Your task to perform on an android device: Go to accessibility settings Image 0: 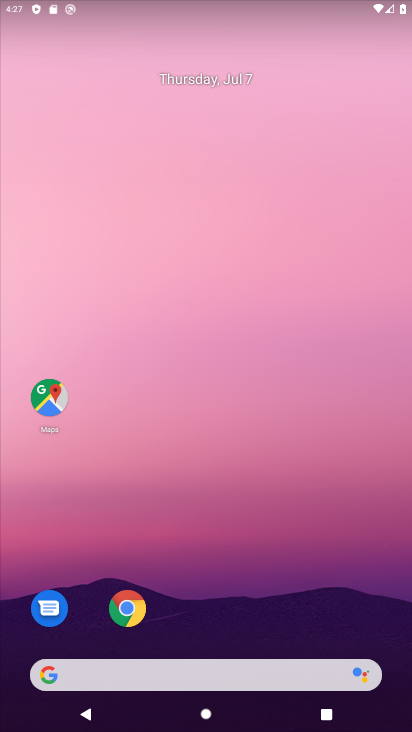
Step 0: drag from (290, 613) to (278, 95)
Your task to perform on an android device: Go to accessibility settings Image 1: 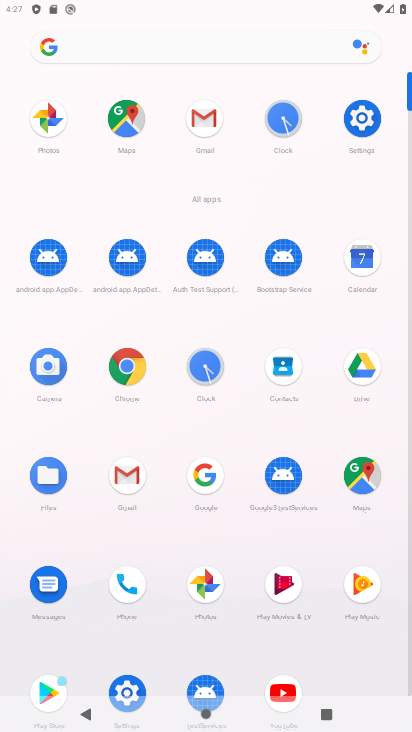
Step 1: click (361, 126)
Your task to perform on an android device: Go to accessibility settings Image 2: 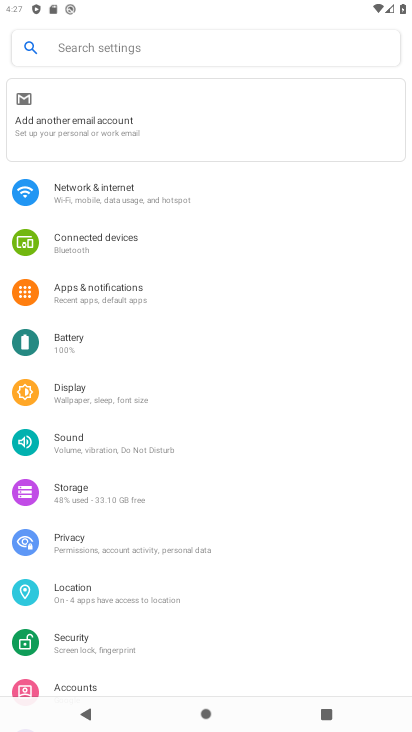
Step 2: drag from (206, 635) to (121, 191)
Your task to perform on an android device: Go to accessibility settings Image 3: 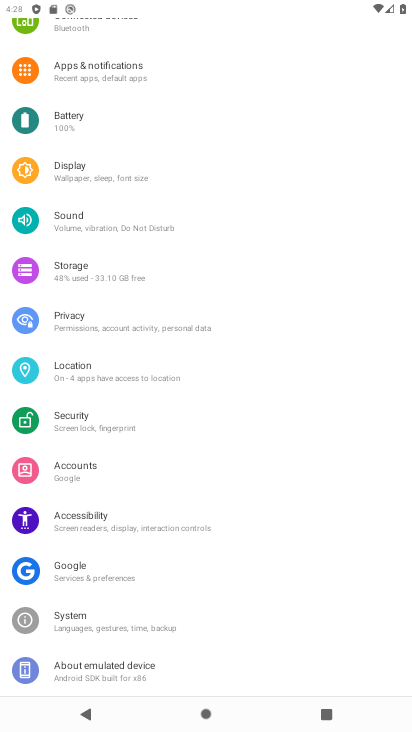
Step 3: click (123, 513)
Your task to perform on an android device: Go to accessibility settings Image 4: 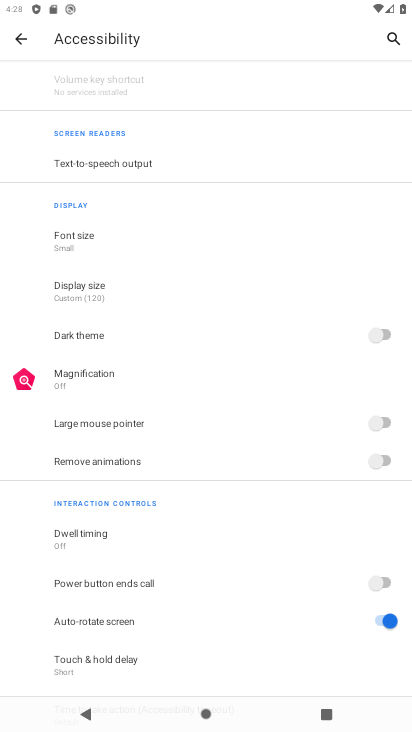
Step 4: task complete